Your task to perform on an android device: Open calendar and show me the second week of next month Image 0: 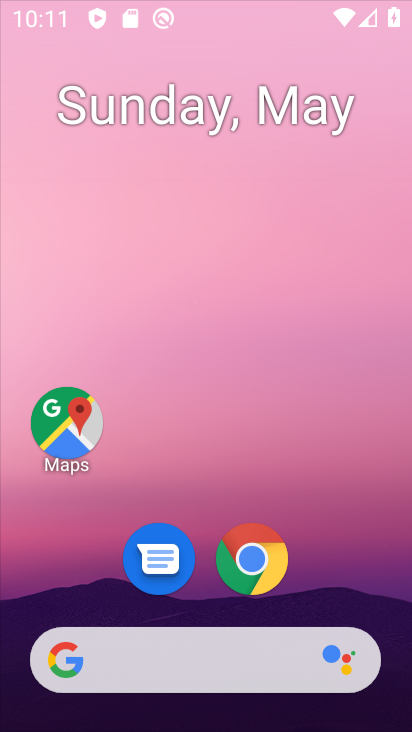
Step 0: drag from (360, 560) to (301, 131)
Your task to perform on an android device: Open calendar and show me the second week of next month Image 1: 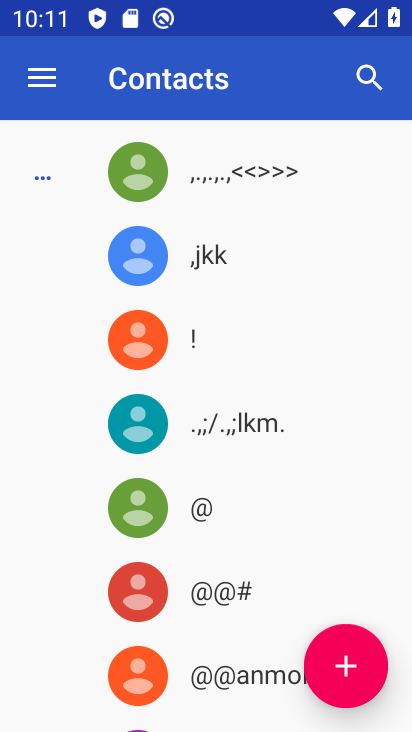
Step 1: press home button
Your task to perform on an android device: Open calendar and show me the second week of next month Image 2: 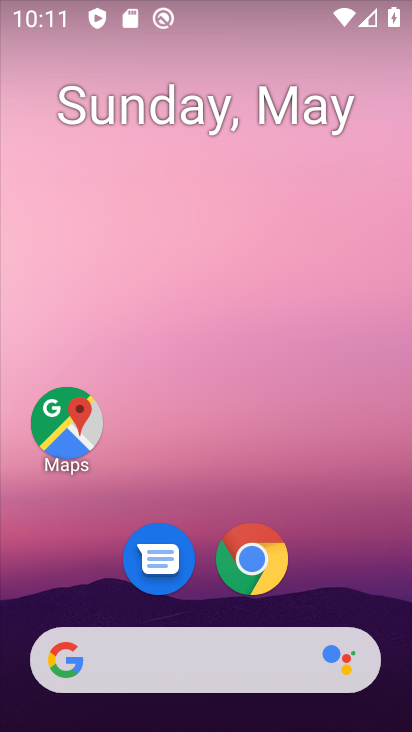
Step 2: drag from (340, 590) to (310, 128)
Your task to perform on an android device: Open calendar and show me the second week of next month Image 3: 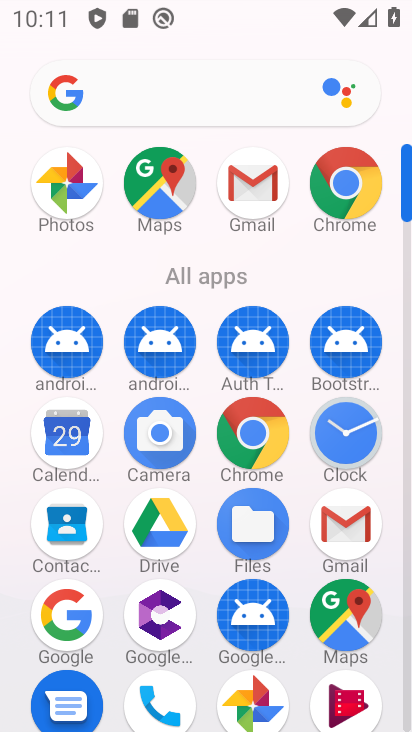
Step 3: click (79, 463)
Your task to perform on an android device: Open calendar and show me the second week of next month Image 4: 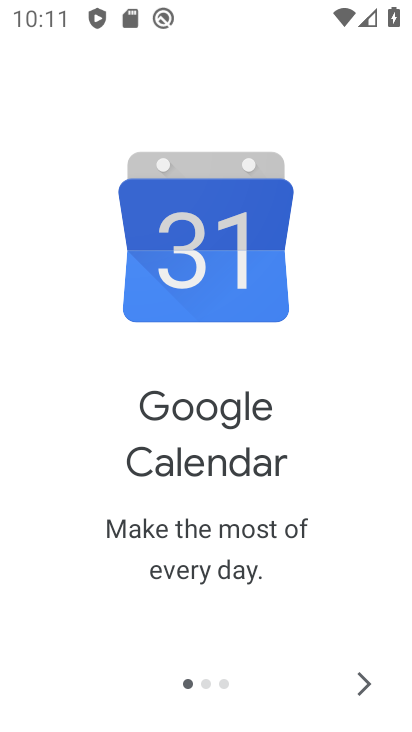
Step 4: click (360, 691)
Your task to perform on an android device: Open calendar and show me the second week of next month Image 5: 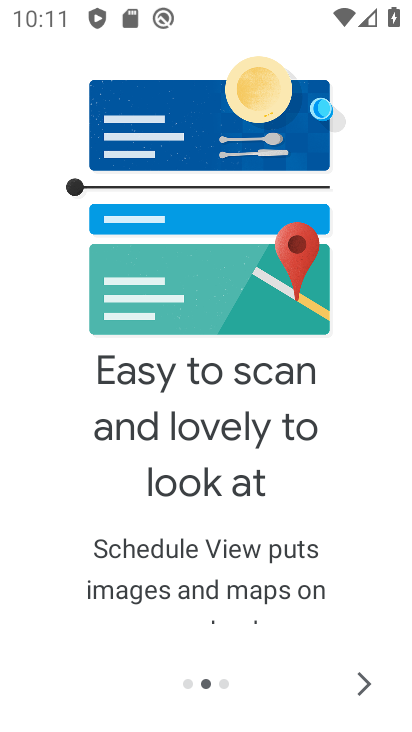
Step 5: click (359, 693)
Your task to perform on an android device: Open calendar and show me the second week of next month Image 6: 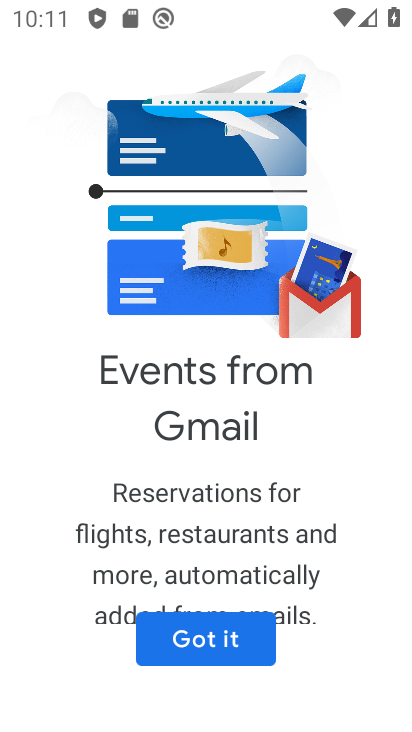
Step 6: click (255, 657)
Your task to perform on an android device: Open calendar and show me the second week of next month Image 7: 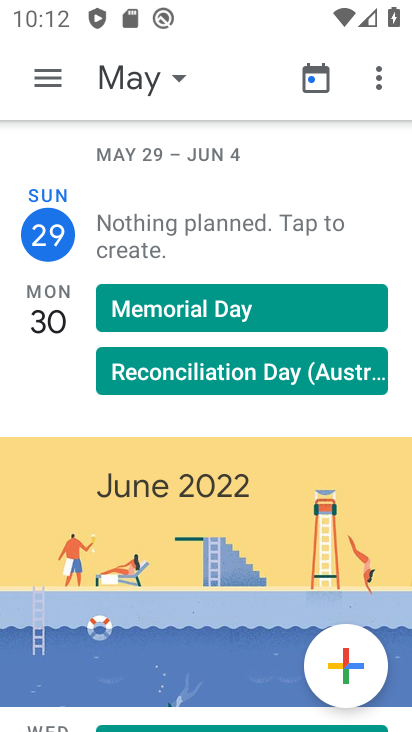
Step 7: drag from (236, 666) to (264, 280)
Your task to perform on an android device: Open calendar and show me the second week of next month Image 8: 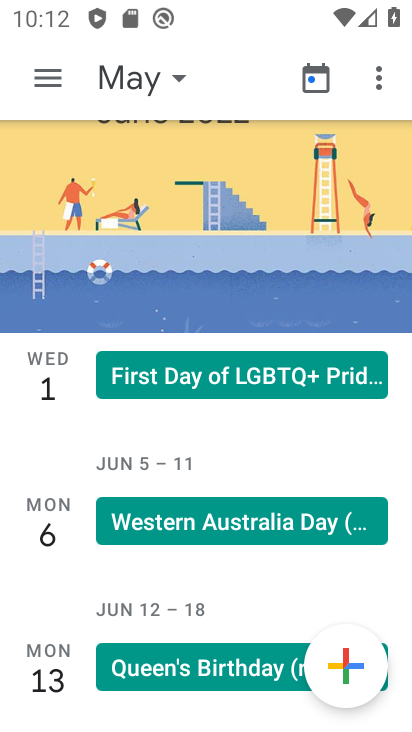
Step 8: drag from (215, 553) to (208, 208)
Your task to perform on an android device: Open calendar and show me the second week of next month Image 9: 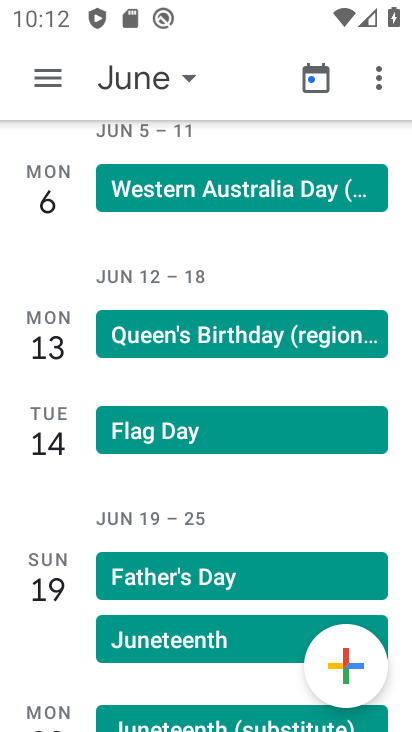
Step 9: click (120, 81)
Your task to perform on an android device: Open calendar and show me the second week of next month Image 10: 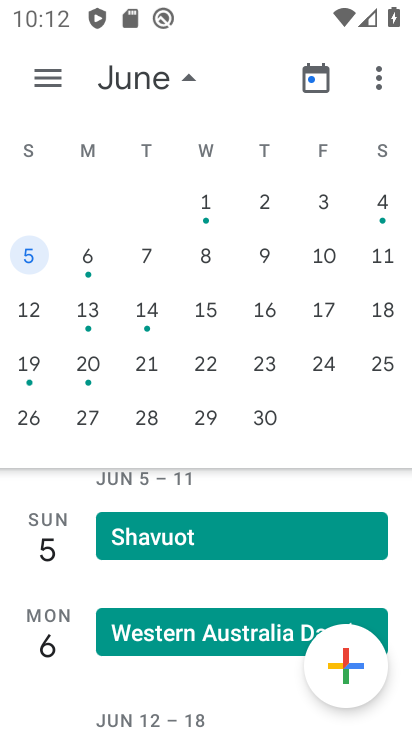
Step 10: task complete